Your task to perform on an android device: Clear all items from cart on costco. Add "dell alienware" to the cart on costco, then select checkout. Image 0: 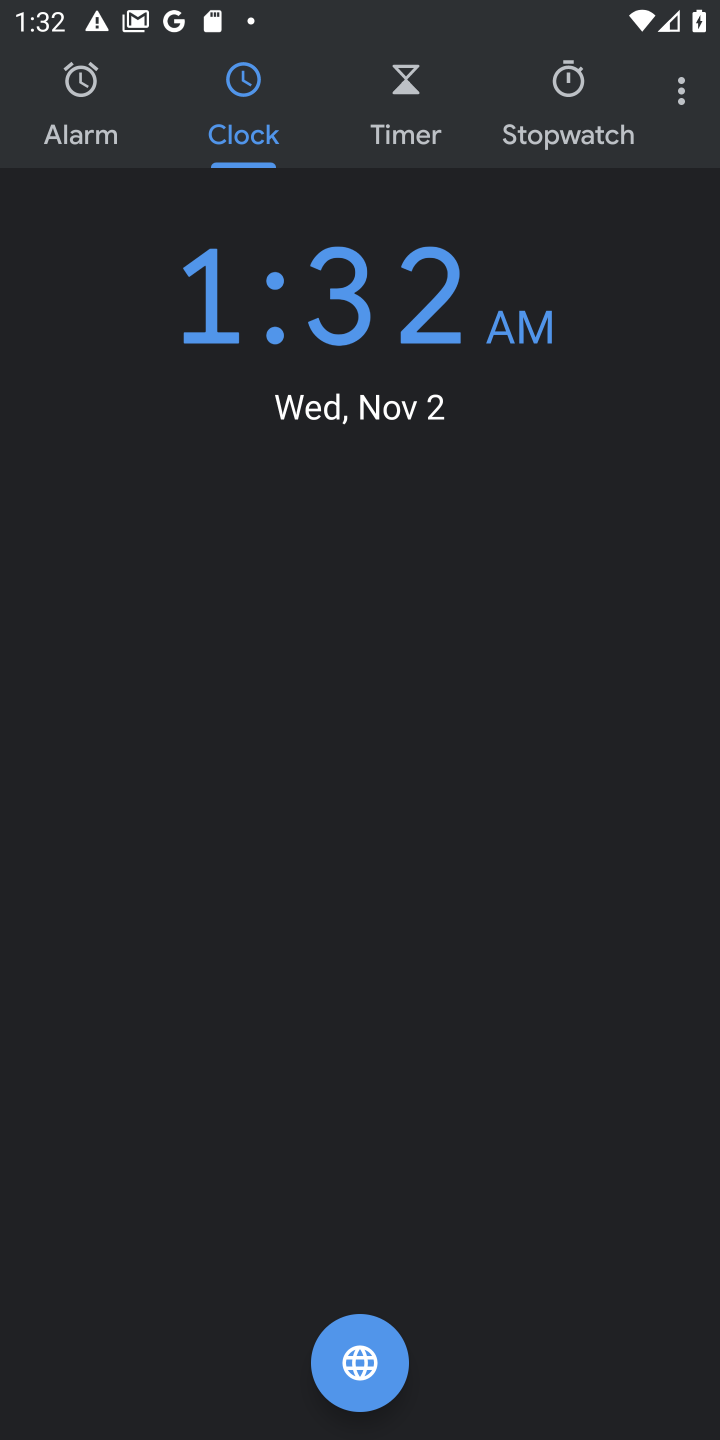
Step 0: click (245, 1368)
Your task to perform on an android device: Clear all items from cart on costco. Add "dell alienware" to the cart on costco, then select checkout. Image 1: 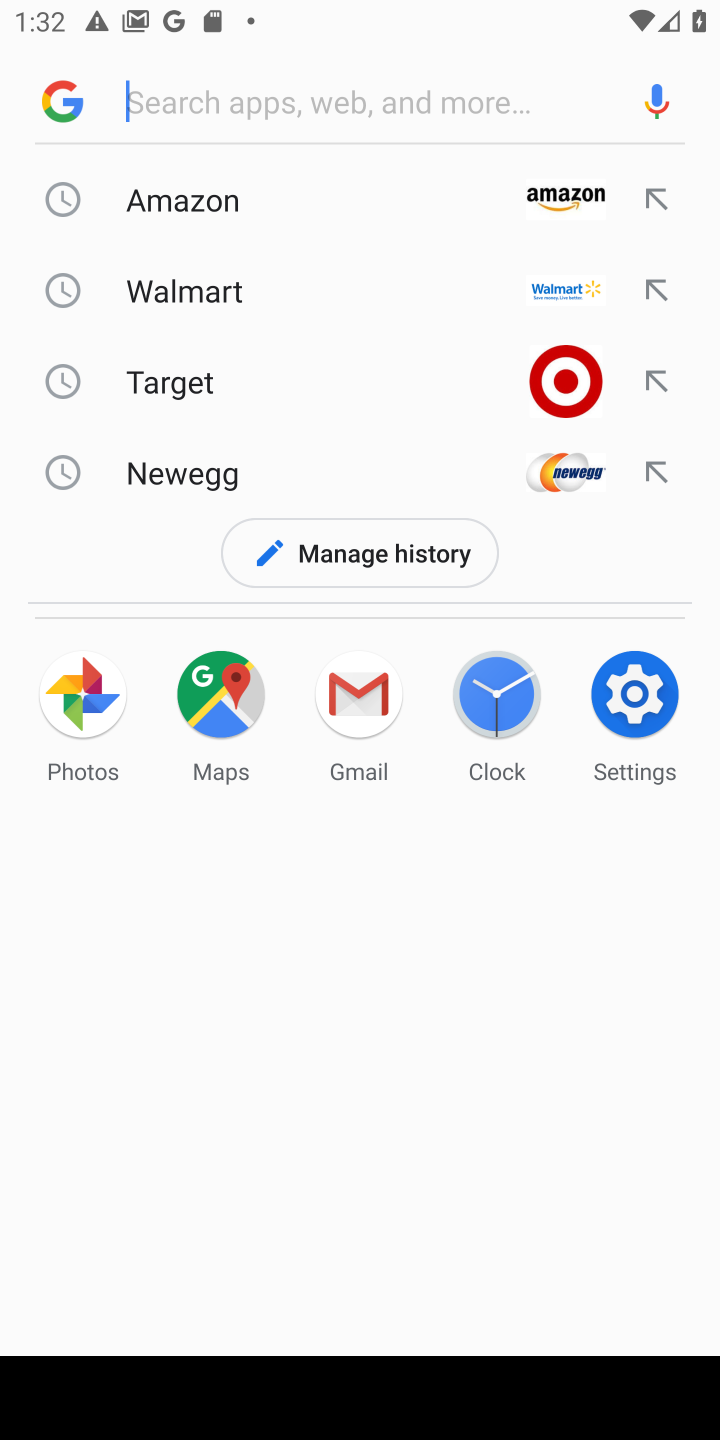
Step 1: type "costco.com"
Your task to perform on an android device: Clear all items from cart on costco. Add "dell alienware" to the cart on costco, then select checkout. Image 2: 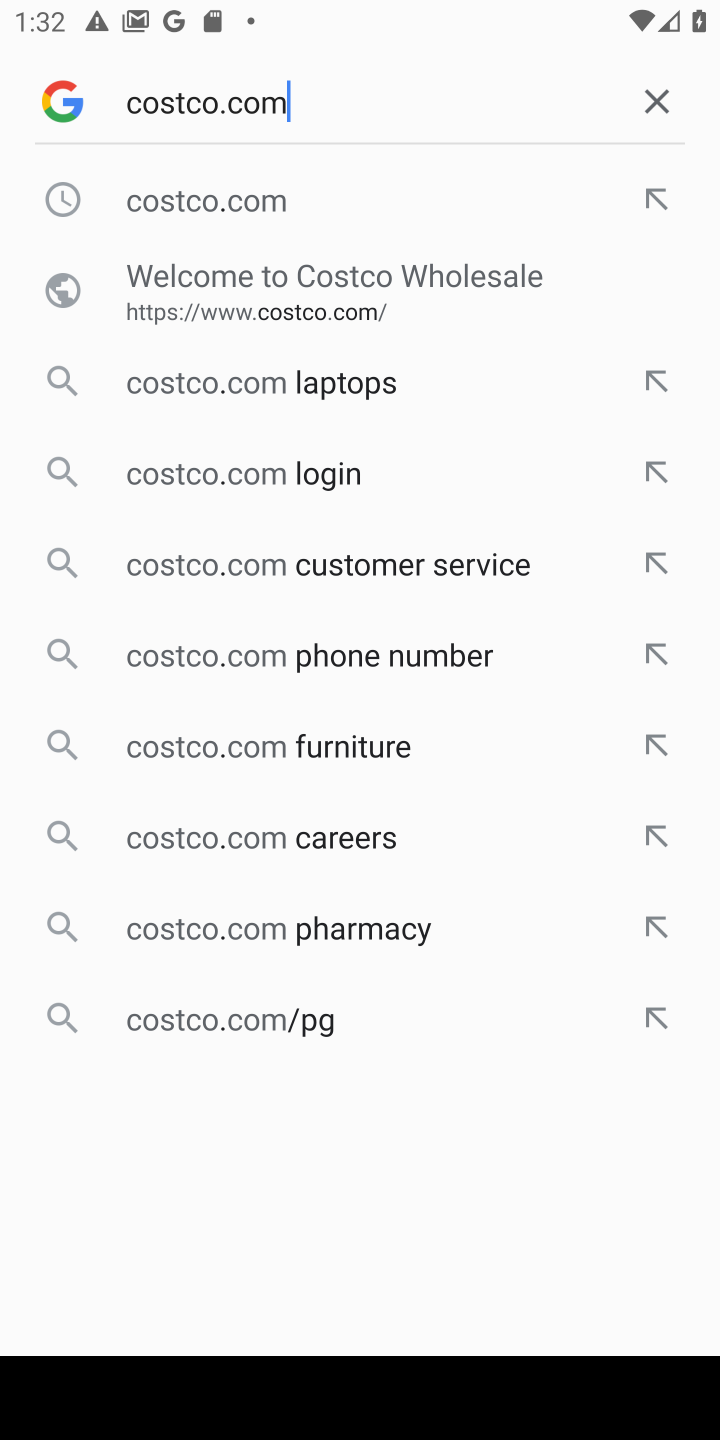
Step 2: click (242, 210)
Your task to perform on an android device: Clear all items from cart on costco. Add "dell alienware" to the cart on costco, then select checkout. Image 3: 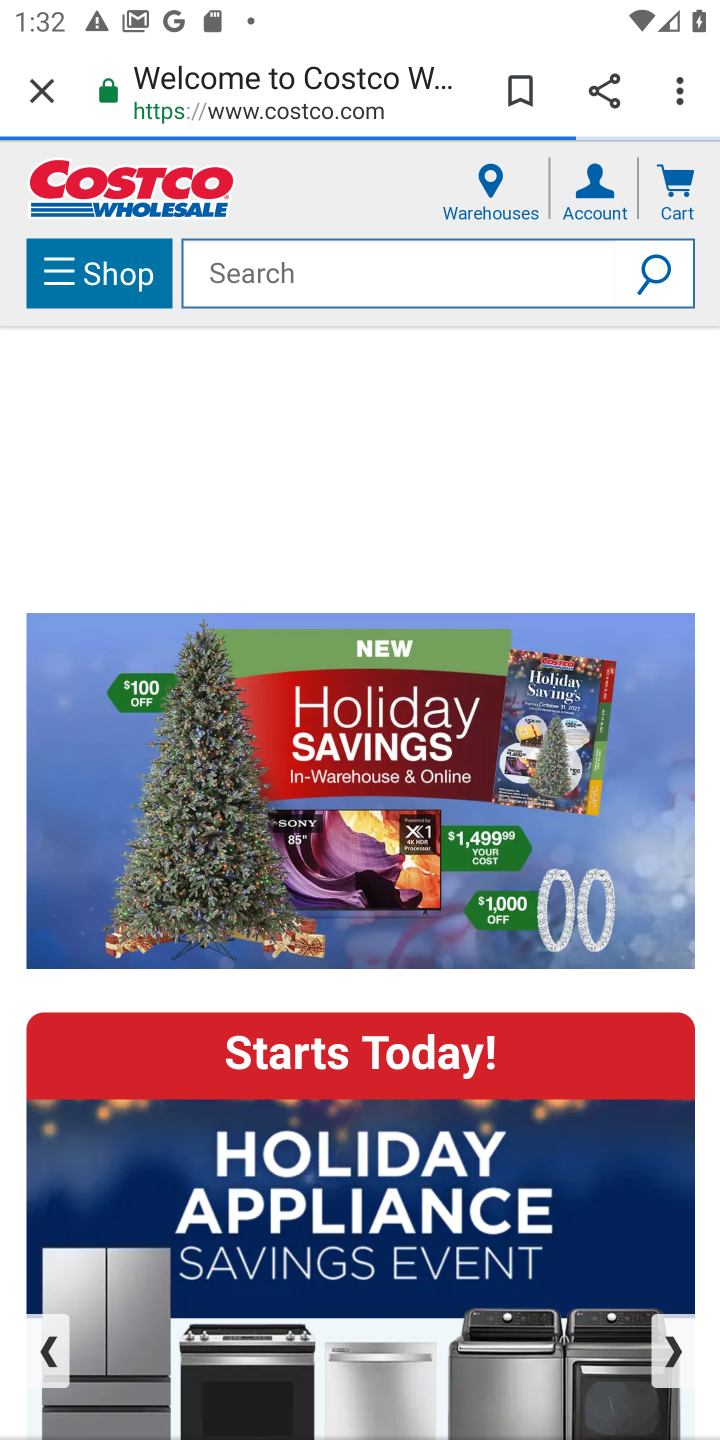
Step 3: click (270, 297)
Your task to perform on an android device: Clear all items from cart on costco. Add "dell alienware" to the cart on costco, then select checkout. Image 4: 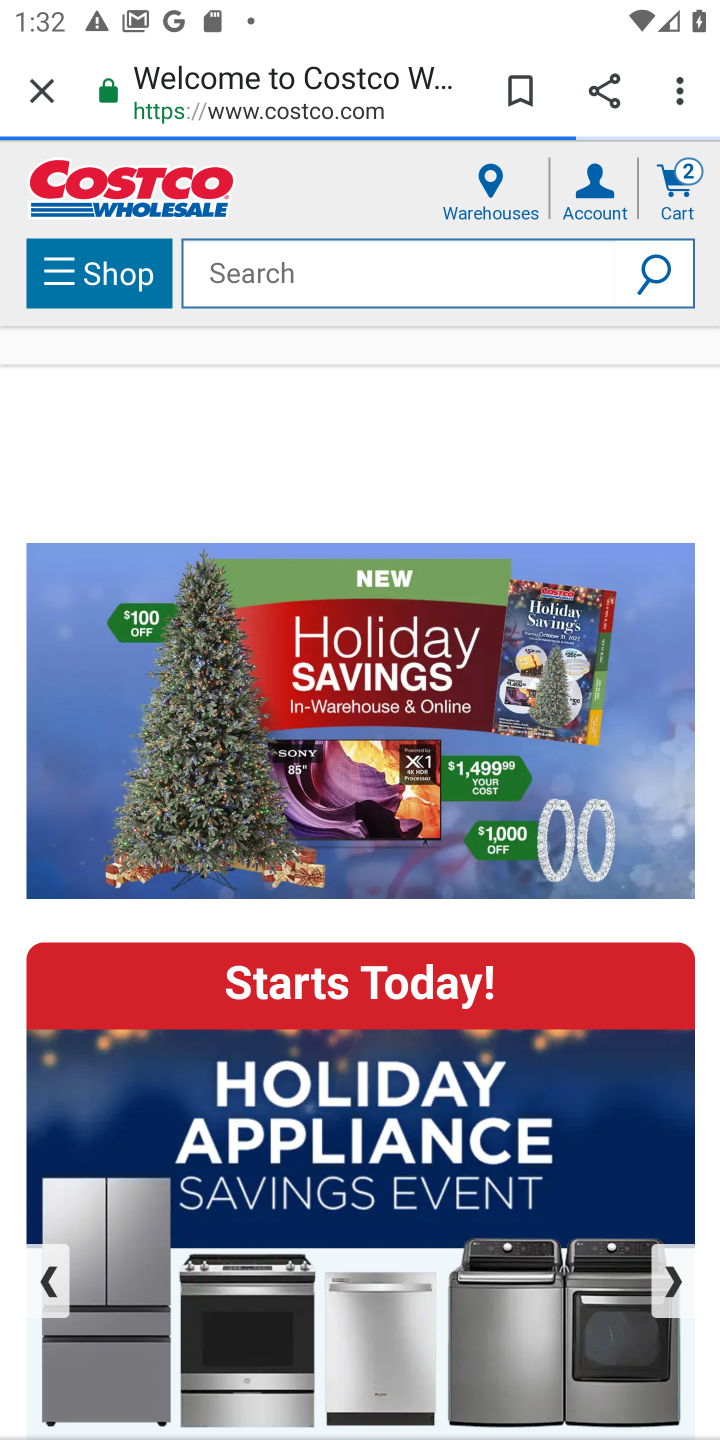
Step 4: type "dell alienware"
Your task to perform on an android device: Clear all items from cart on costco. Add "dell alienware" to the cart on costco, then select checkout. Image 5: 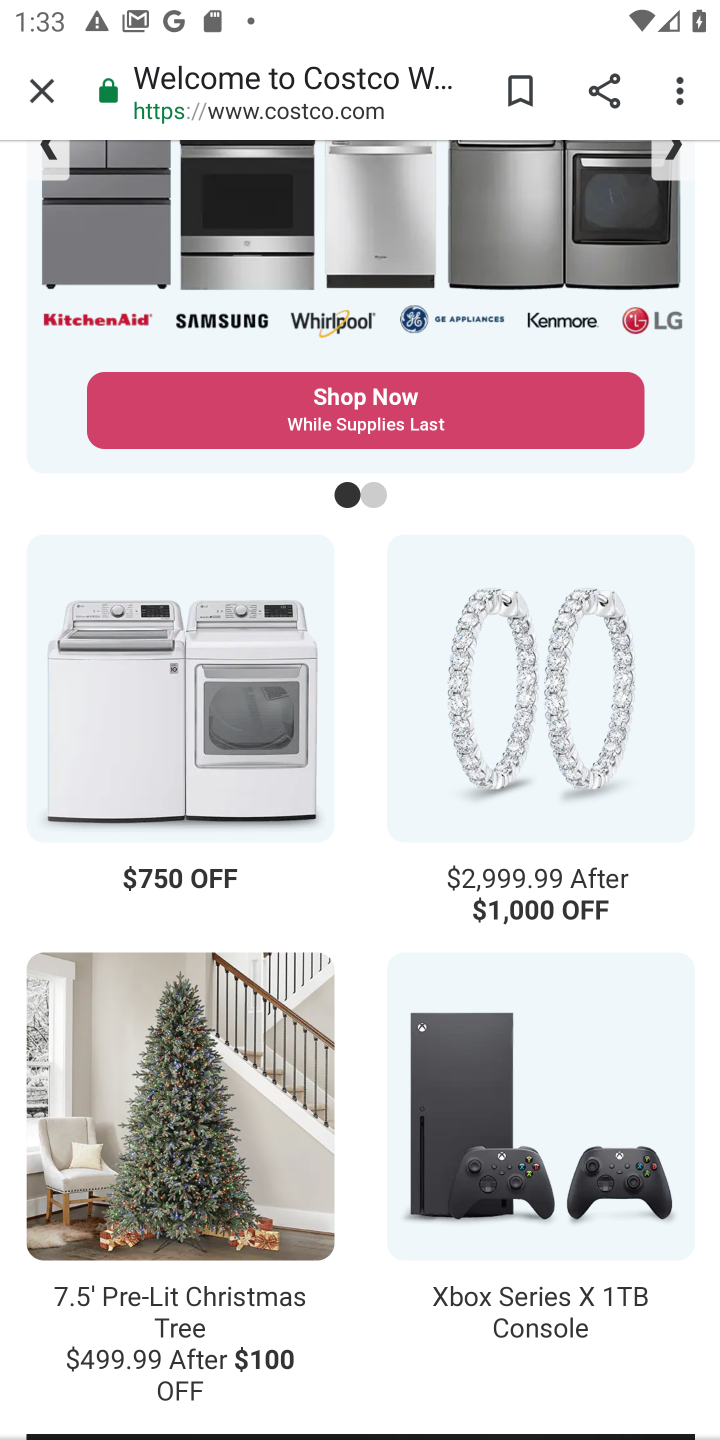
Step 5: drag from (330, 548) to (580, 1256)
Your task to perform on an android device: Clear all items from cart on costco. Add "dell alienware" to the cart on costco, then select checkout. Image 6: 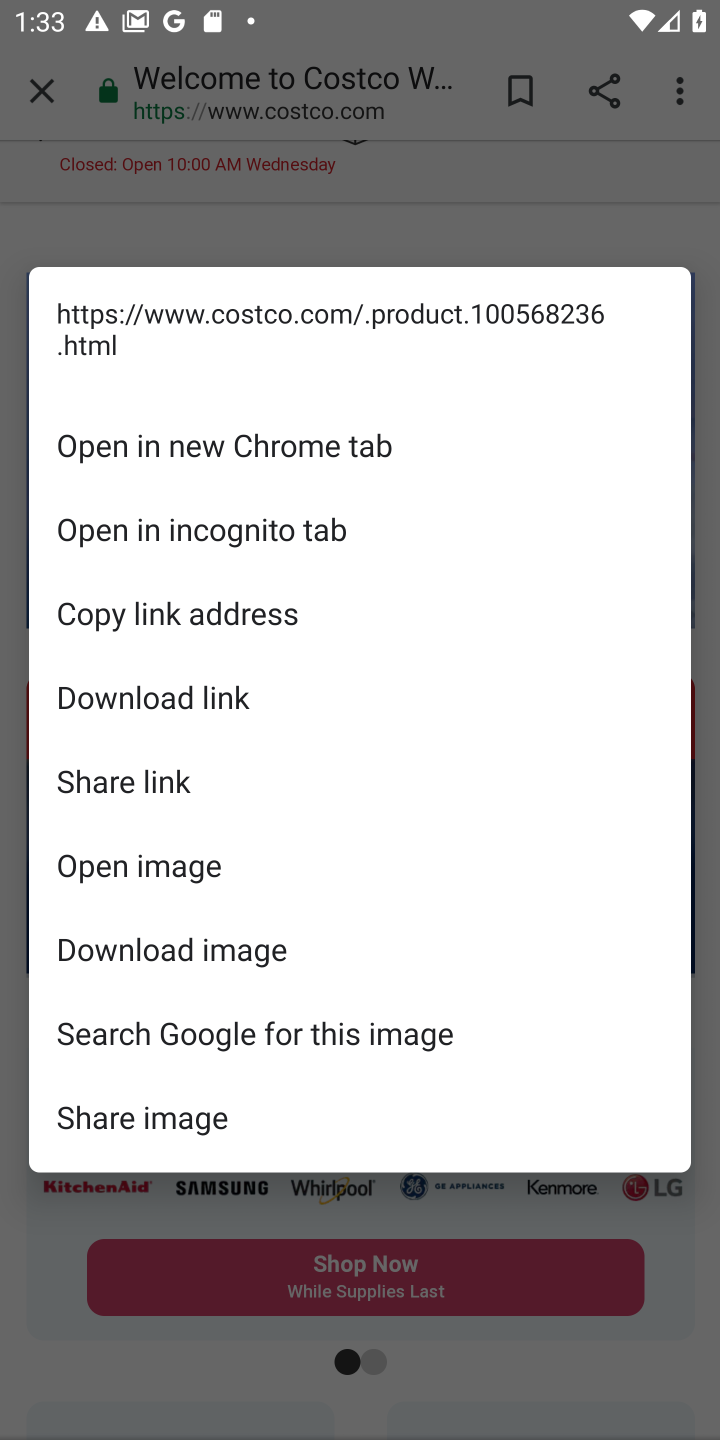
Step 6: click (406, 1246)
Your task to perform on an android device: Clear all items from cart on costco. Add "dell alienware" to the cart on costco, then select checkout. Image 7: 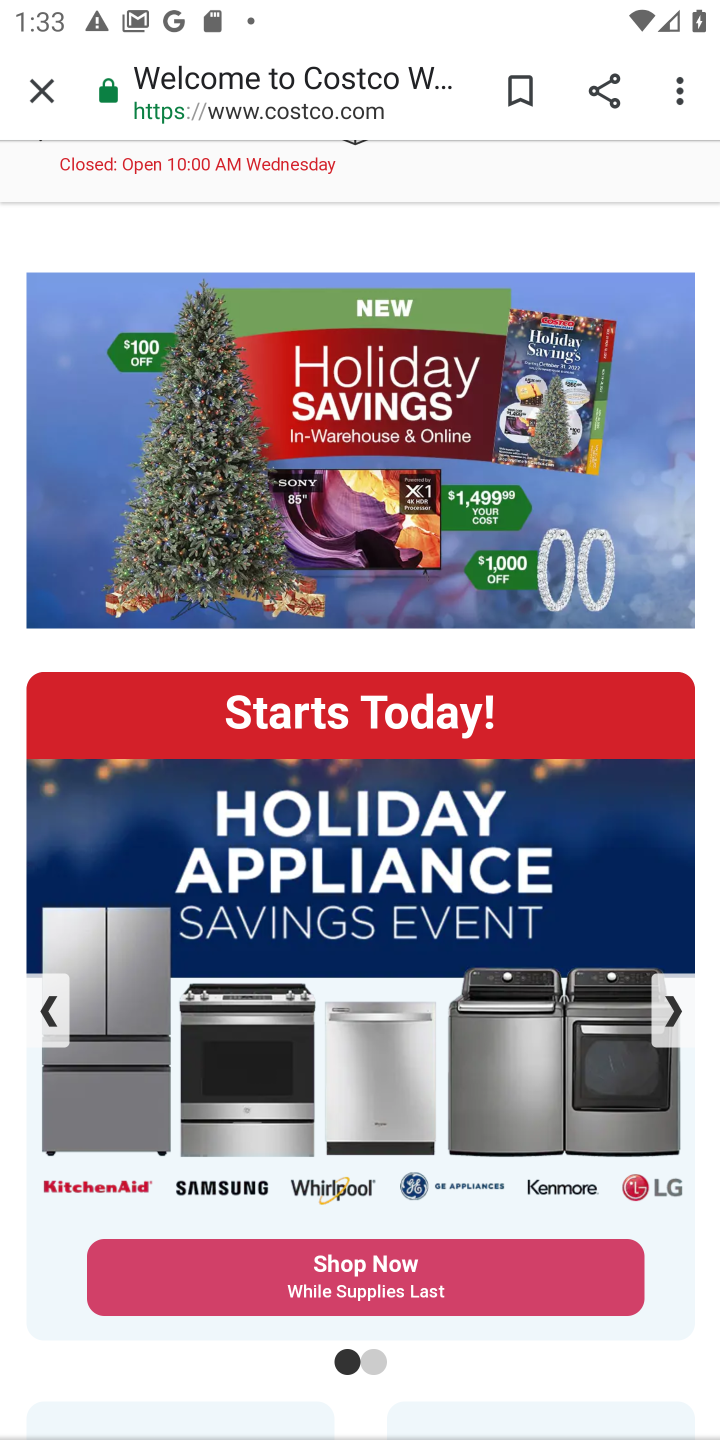
Step 7: task complete